Your task to perform on an android device: turn notification dots off Image 0: 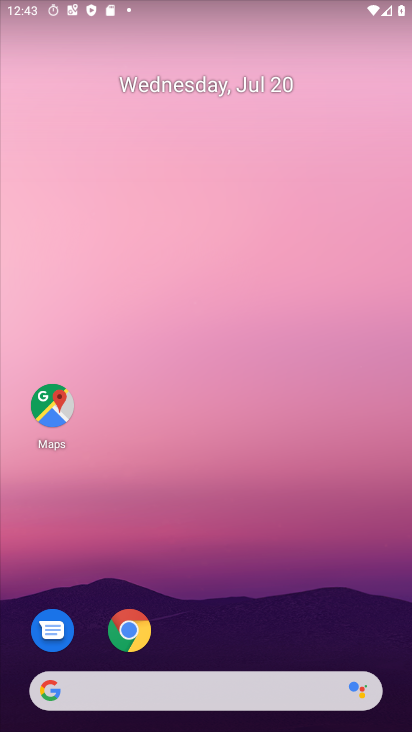
Step 0: drag from (308, 648) to (358, 186)
Your task to perform on an android device: turn notification dots off Image 1: 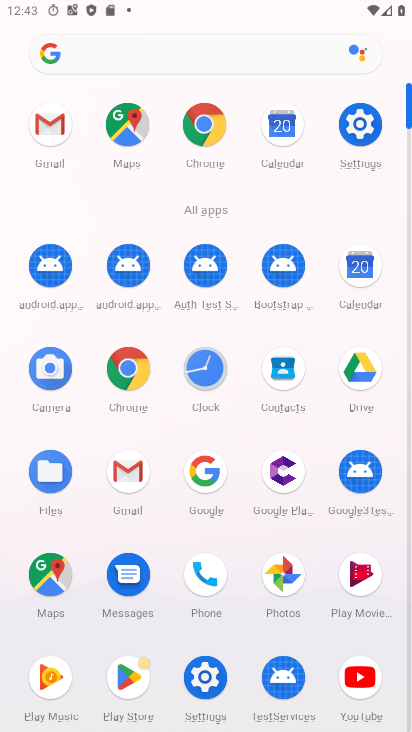
Step 1: click (357, 138)
Your task to perform on an android device: turn notification dots off Image 2: 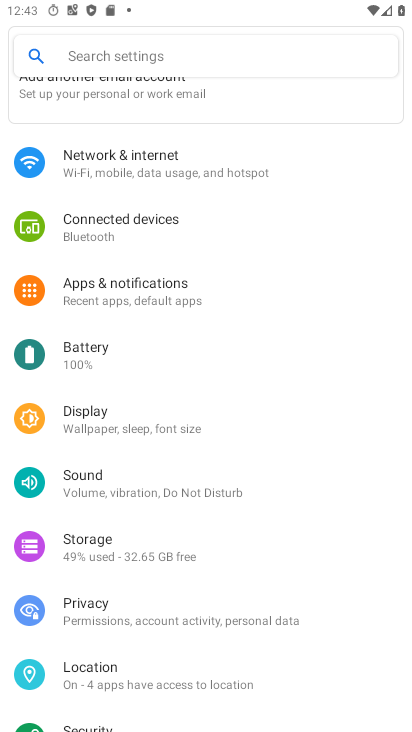
Step 2: click (189, 298)
Your task to perform on an android device: turn notification dots off Image 3: 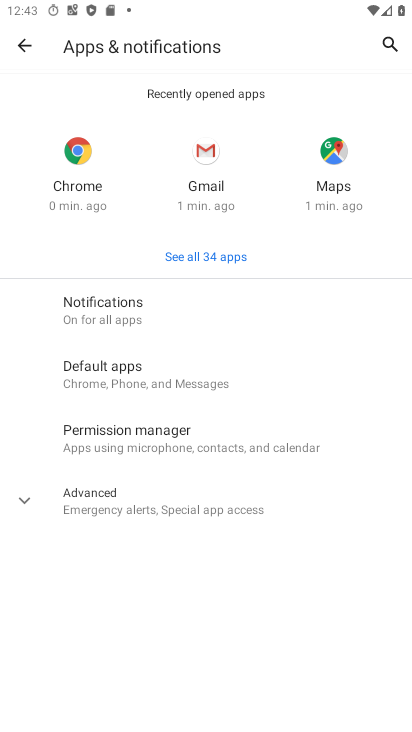
Step 3: click (119, 336)
Your task to perform on an android device: turn notification dots off Image 4: 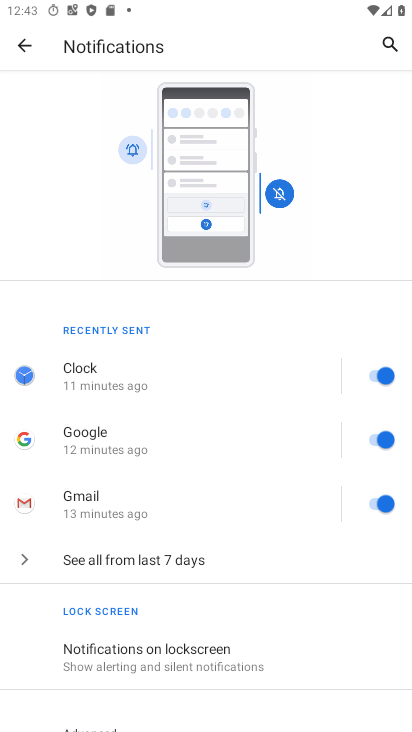
Step 4: drag from (182, 682) to (199, 278)
Your task to perform on an android device: turn notification dots off Image 5: 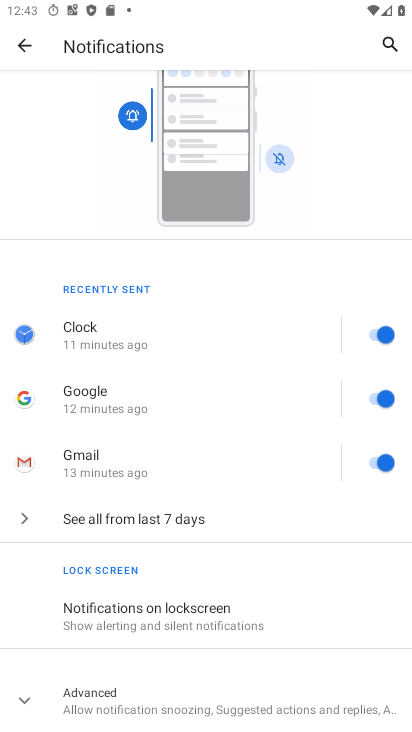
Step 5: click (199, 707)
Your task to perform on an android device: turn notification dots off Image 6: 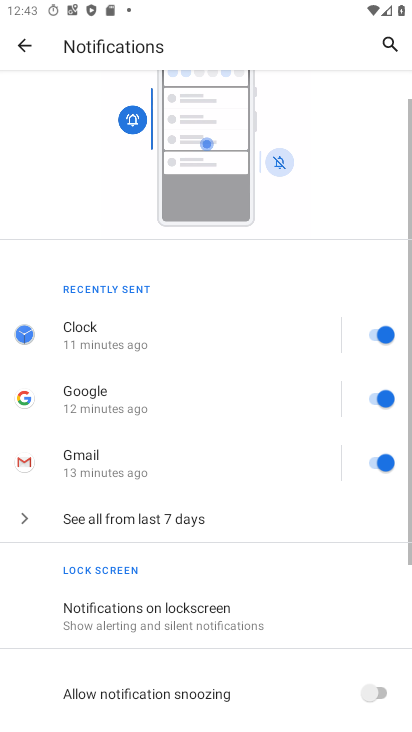
Step 6: drag from (199, 707) to (195, 280)
Your task to perform on an android device: turn notification dots off Image 7: 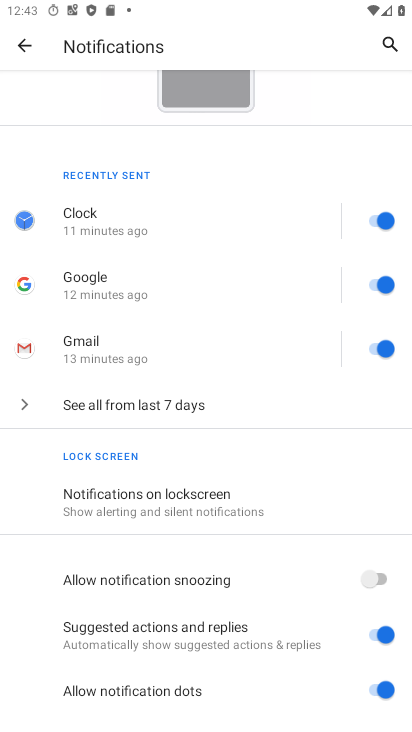
Step 7: click (377, 681)
Your task to perform on an android device: turn notification dots off Image 8: 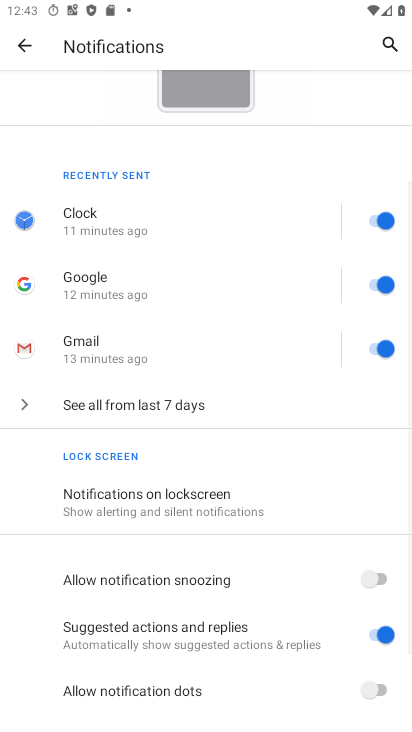
Step 8: task complete